Your task to perform on an android device: Open a new incognito tab in Chrome Image 0: 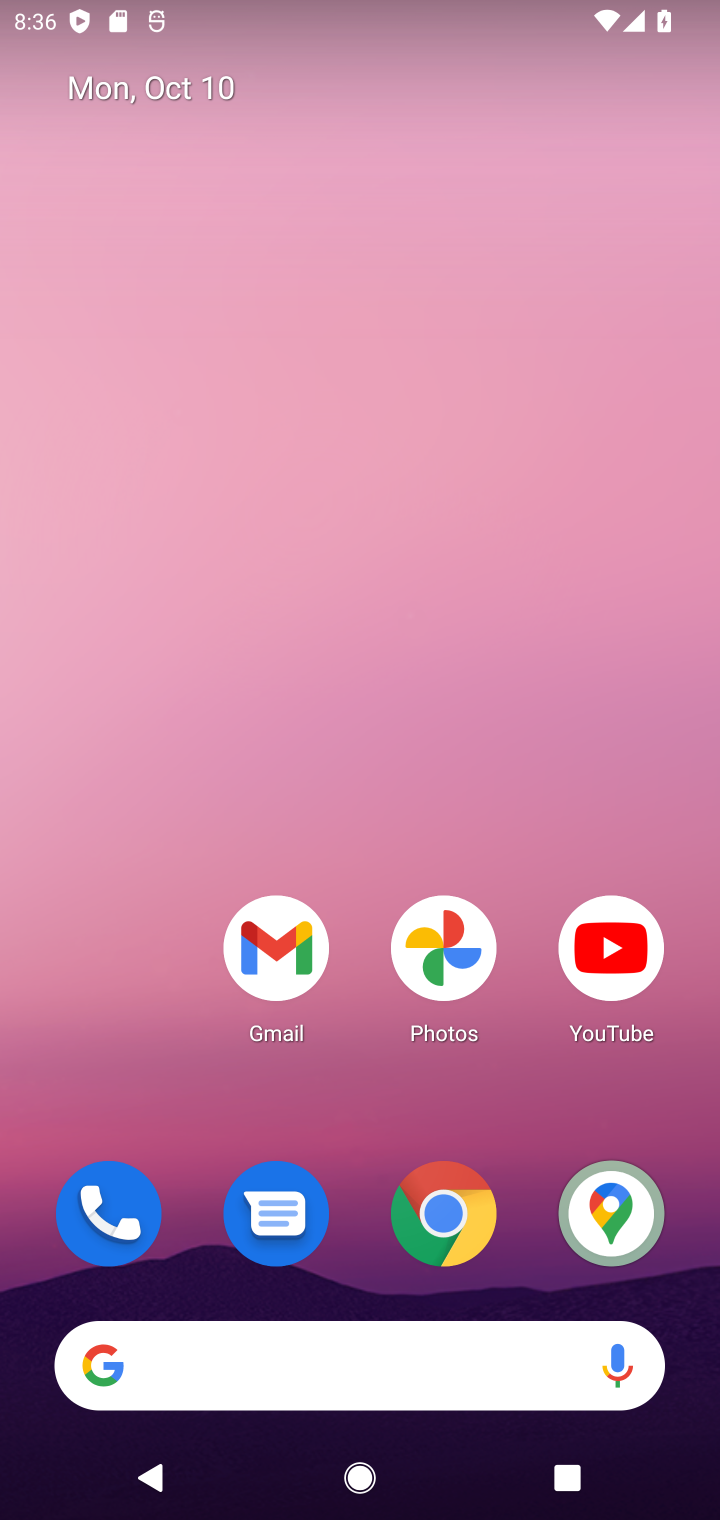
Step 0: click (476, 1206)
Your task to perform on an android device: Open a new incognito tab in Chrome Image 1: 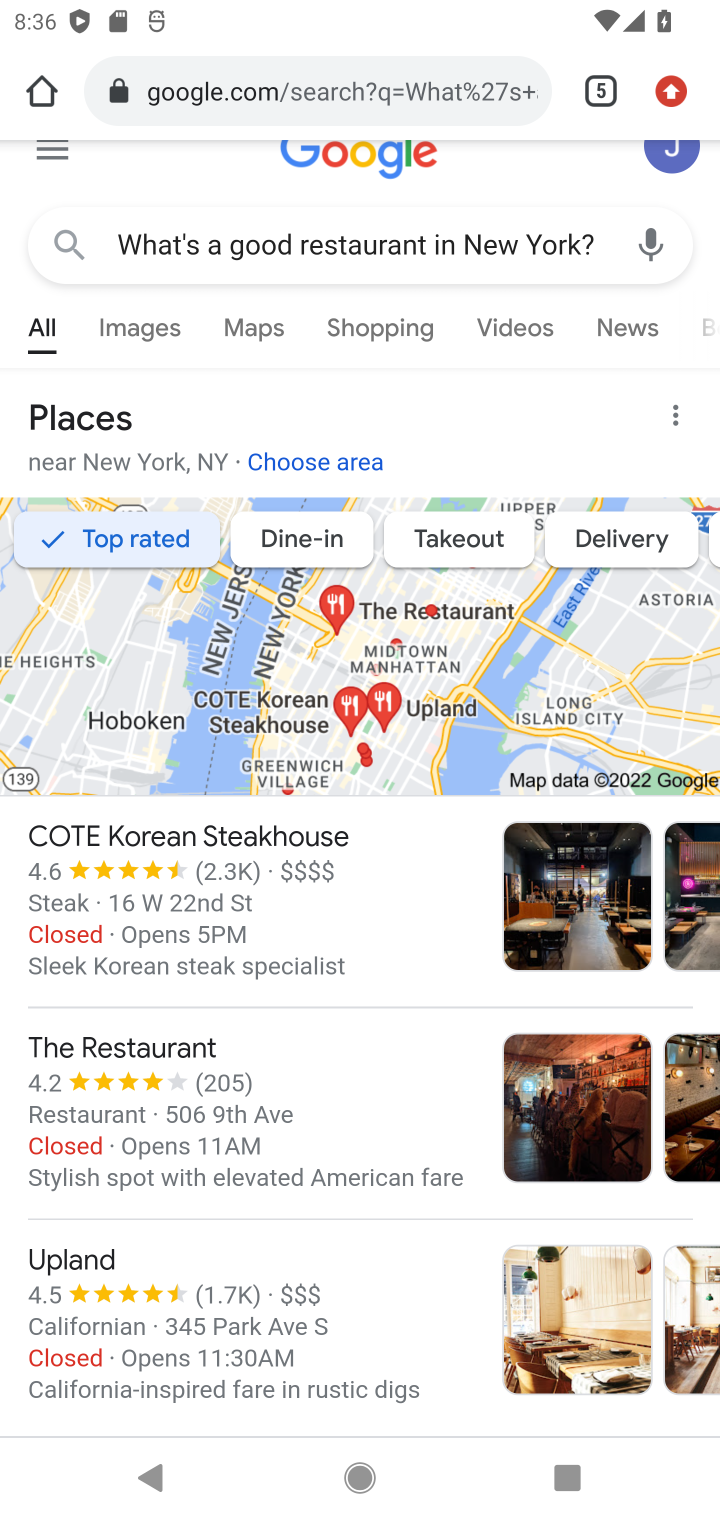
Step 1: press home button
Your task to perform on an android device: Open a new incognito tab in Chrome Image 2: 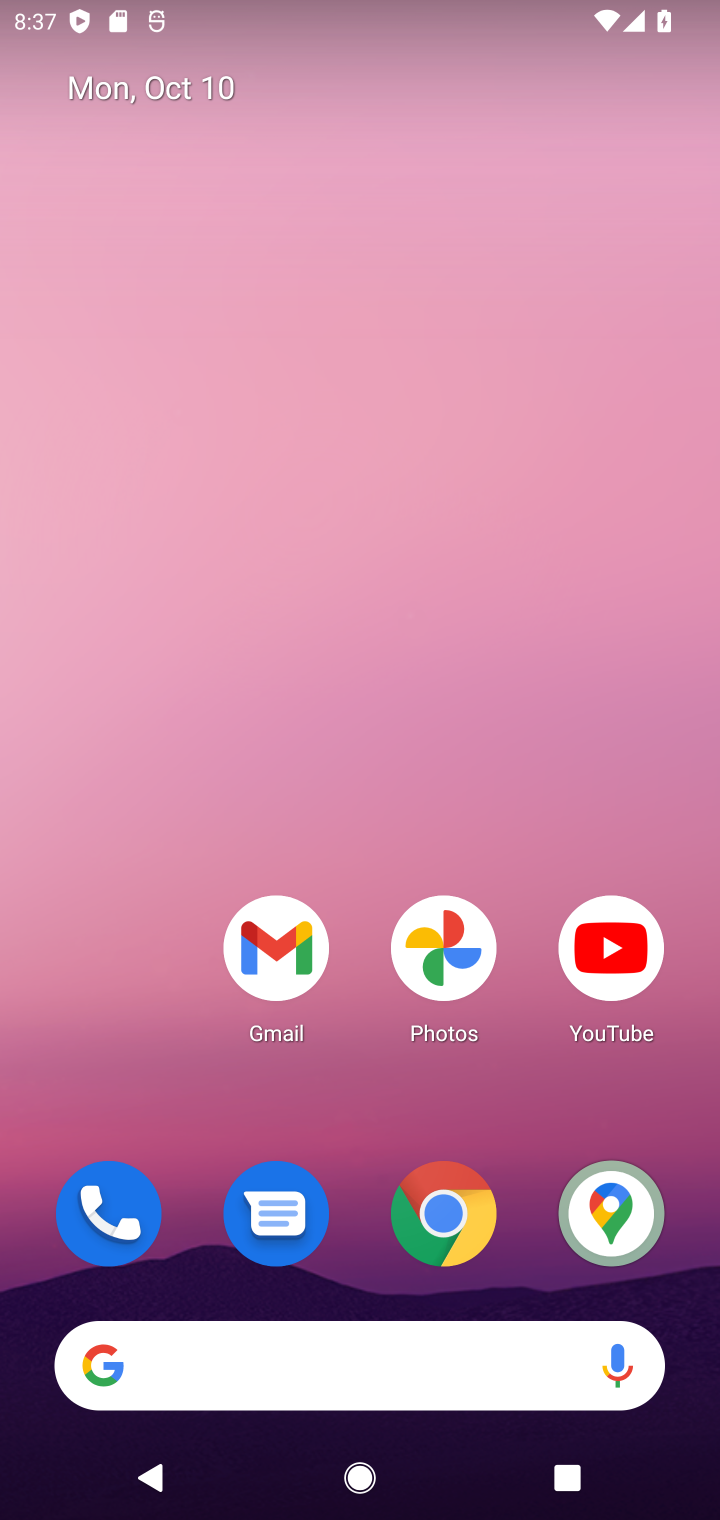
Step 2: click (451, 1196)
Your task to perform on an android device: Open a new incognito tab in Chrome Image 3: 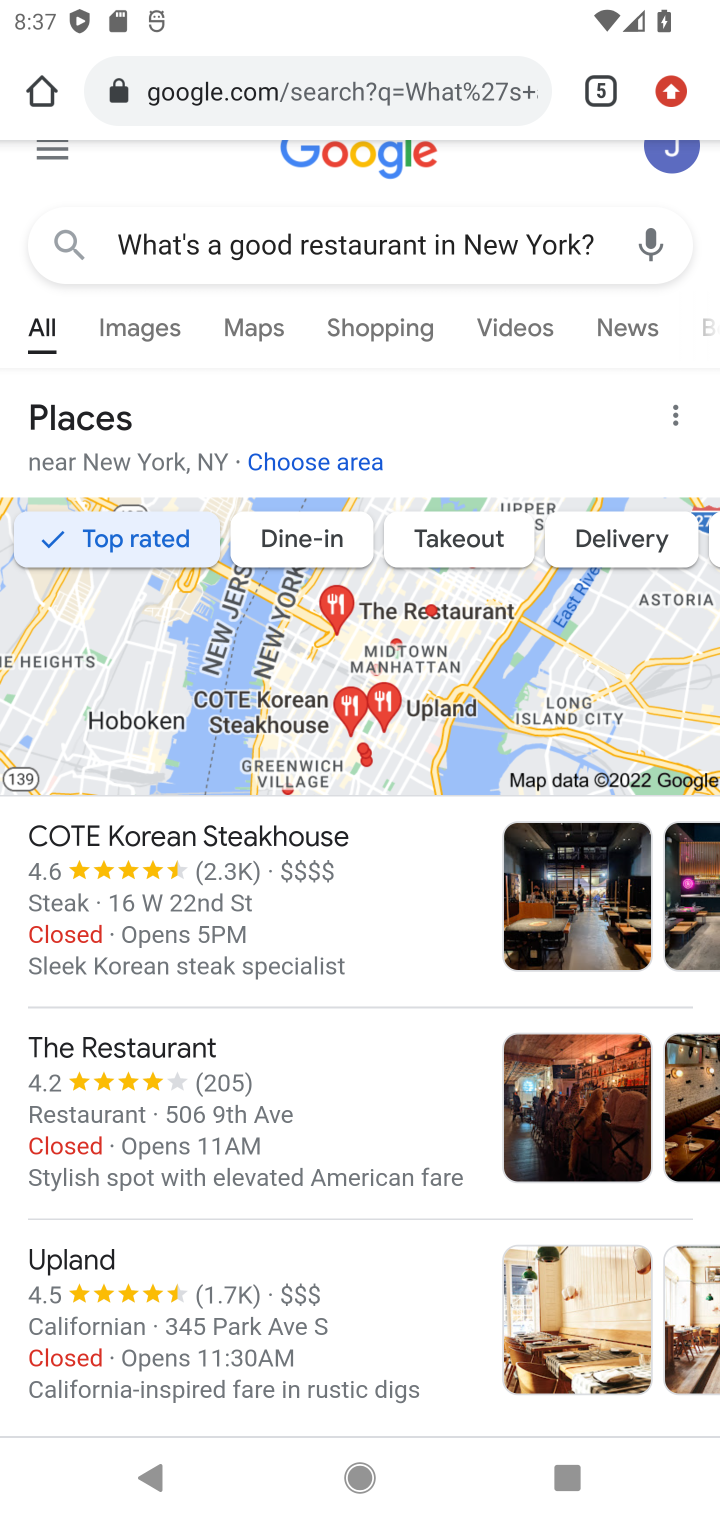
Step 3: task complete